Your task to perform on an android device: What is the recent news? Image 0: 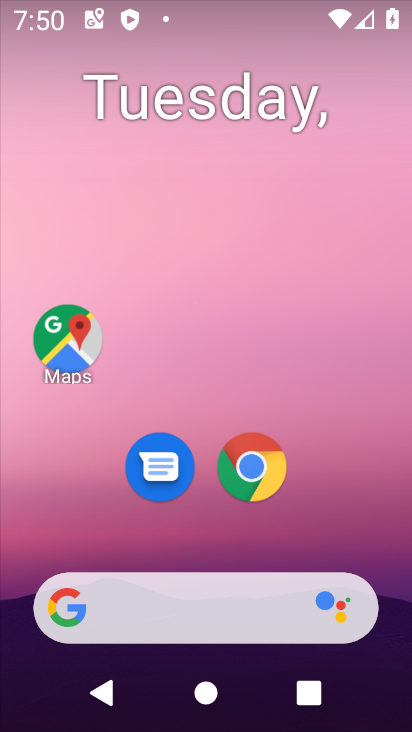
Step 0: click (252, 484)
Your task to perform on an android device: What is the recent news? Image 1: 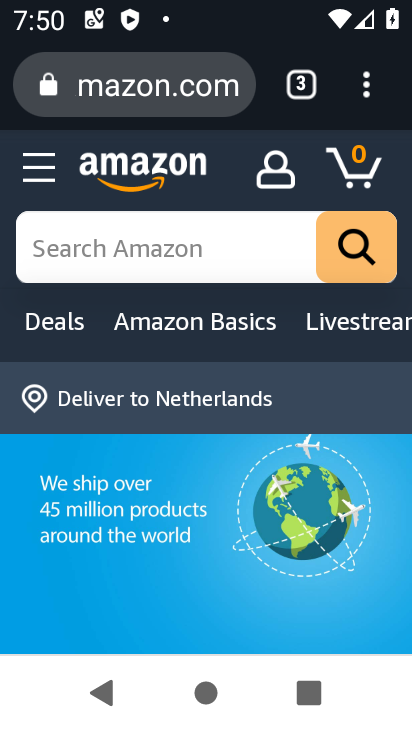
Step 1: click (205, 92)
Your task to perform on an android device: What is the recent news? Image 2: 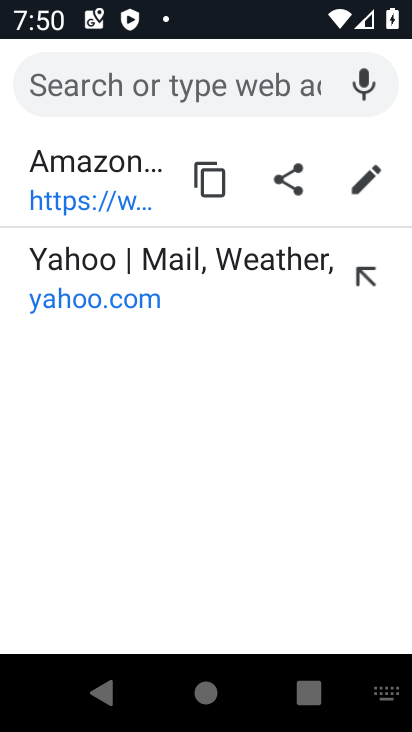
Step 2: type "recent news"
Your task to perform on an android device: What is the recent news? Image 3: 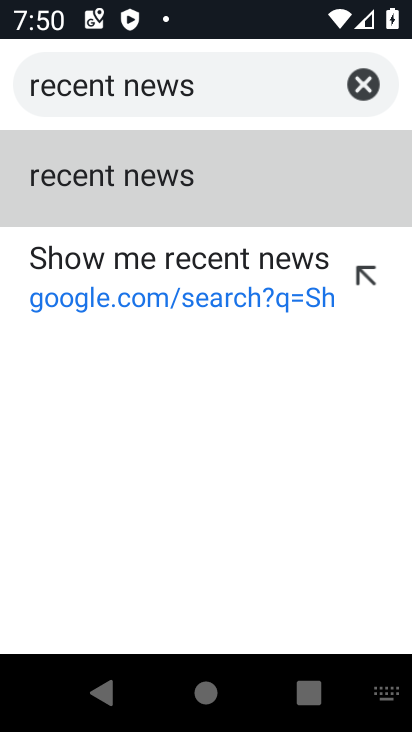
Step 3: click (168, 176)
Your task to perform on an android device: What is the recent news? Image 4: 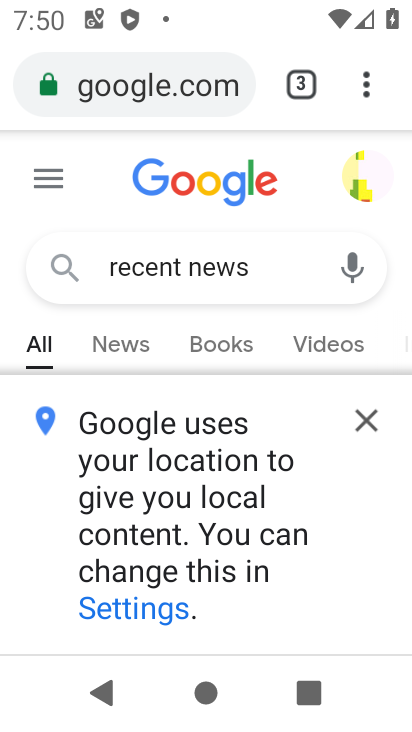
Step 4: click (373, 412)
Your task to perform on an android device: What is the recent news? Image 5: 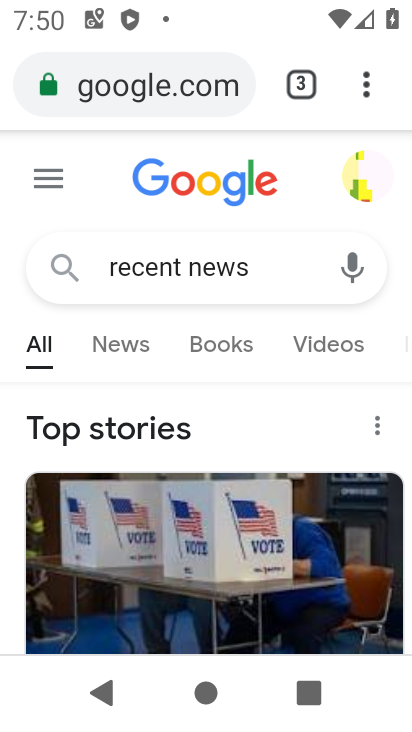
Step 5: task complete